Your task to perform on an android device: Open Android settings Image 0: 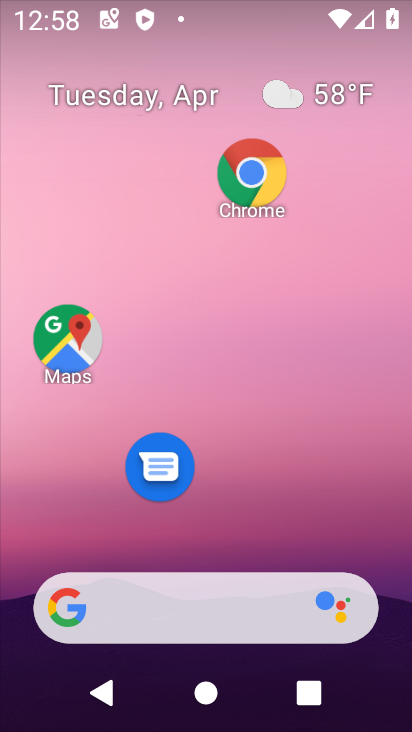
Step 0: drag from (282, 500) to (330, 104)
Your task to perform on an android device: Open Android settings Image 1: 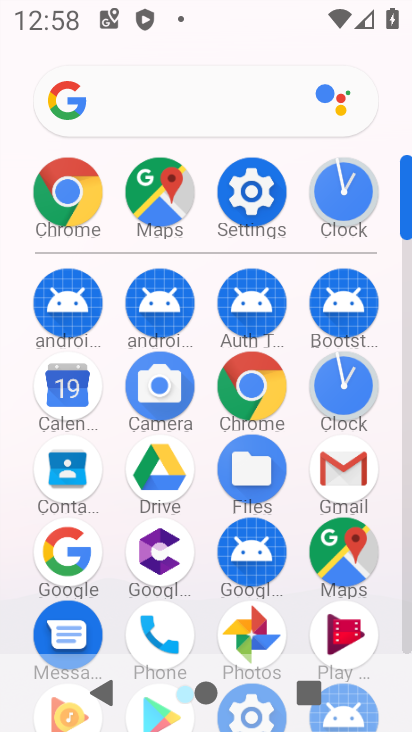
Step 1: drag from (303, 544) to (305, 149)
Your task to perform on an android device: Open Android settings Image 2: 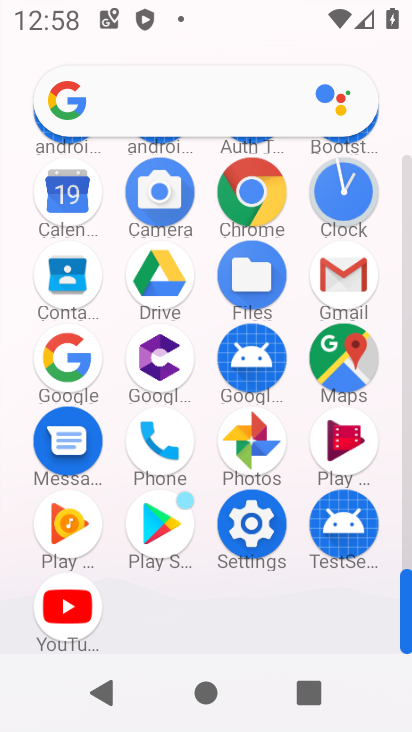
Step 2: click (264, 535)
Your task to perform on an android device: Open Android settings Image 3: 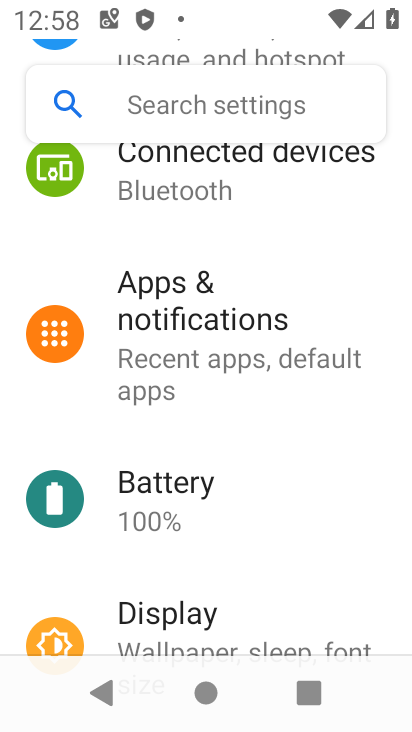
Step 3: drag from (266, 509) to (274, 213)
Your task to perform on an android device: Open Android settings Image 4: 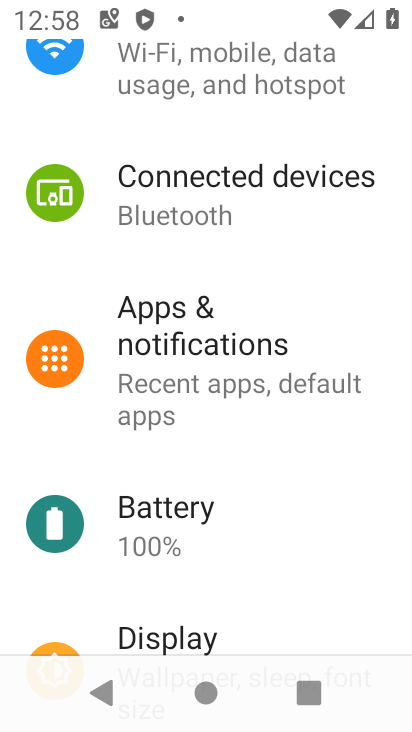
Step 4: drag from (268, 527) to (288, 142)
Your task to perform on an android device: Open Android settings Image 5: 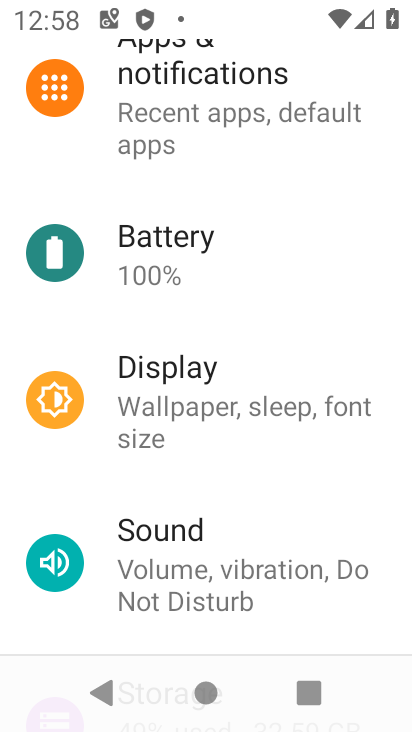
Step 5: drag from (233, 492) to (294, 132)
Your task to perform on an android device: Open Android settings Image 6: 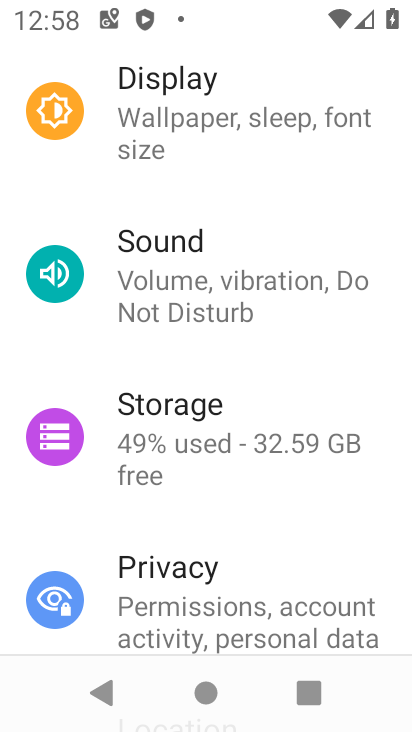
Step 6: drag from (298, 504) to (302, 147)
Your task to perform on an android device: Open Android settings Image 7: 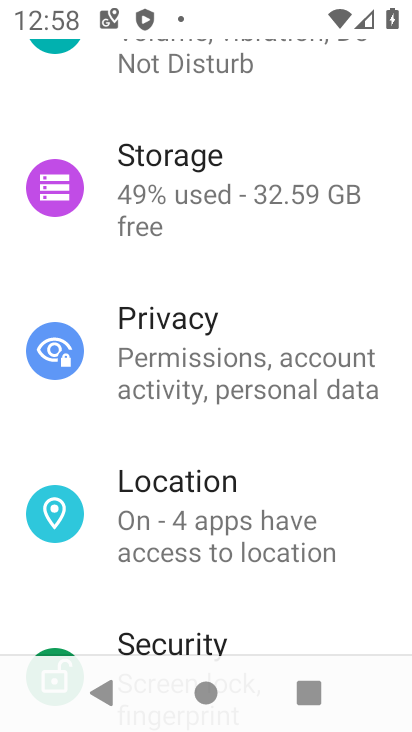
Step 7: drag from (265, 603) to (290, 245)
Your task to perform on an android device: Open Android settings Image 8: 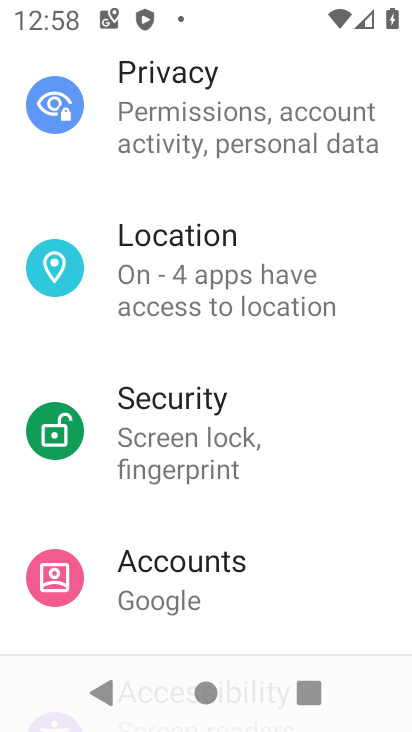
Step 8: drag from (296, 619) to (304, 228)
Your task to perform on an android device: Open Android settings Image 9: 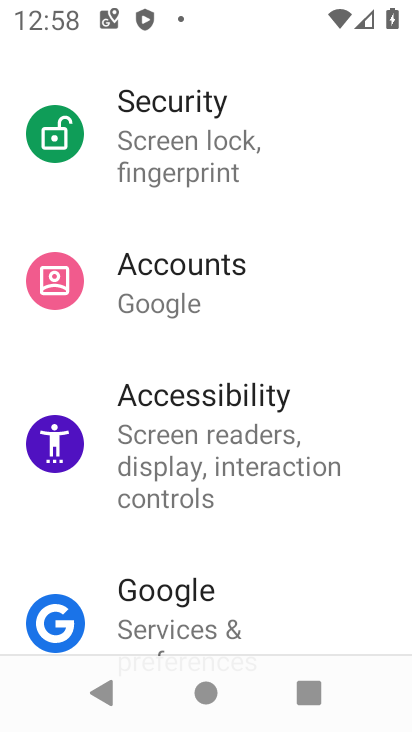
Step 9: drag from (265, 598) to (280, 164)
Your task to perform on an android device: Open Android settings Image 10: 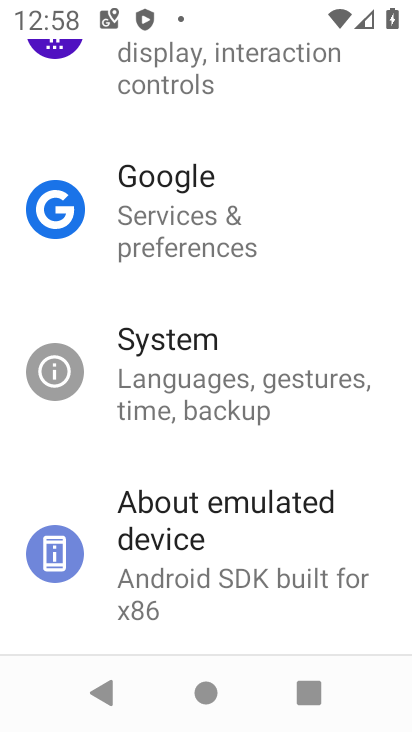
Step 10: drag from (268, 651) to (288, 257)
Your task to perform on an android device: Open Android settings Image 11: 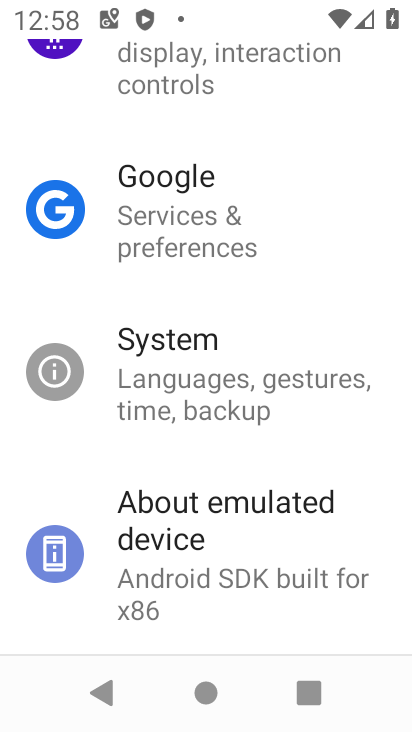
Step 11: click (252, 560)
Your task to perform on an android device: Open Android settings Image 12: 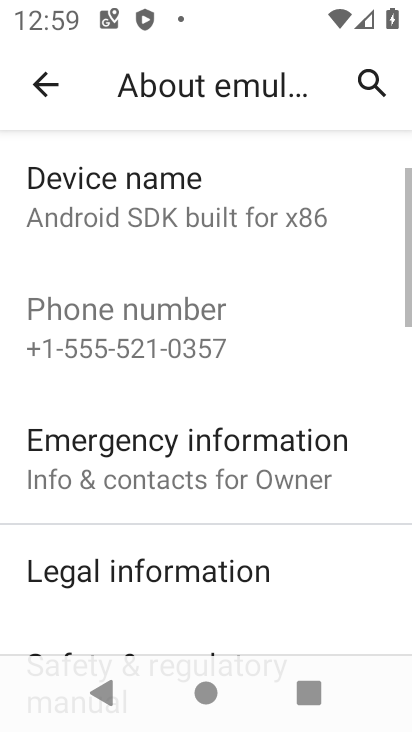
Step 12: drag from (160, 585) to (205, 37)
Your task to perform on an android device: Open Android settings Image 13: 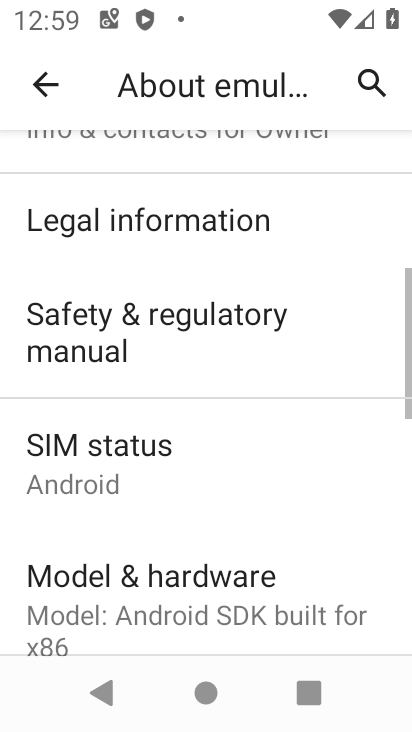
Step 13: drag from (158, 577) to (207, 182)
Your task to perform on an android device: Open Android settings Image 14: 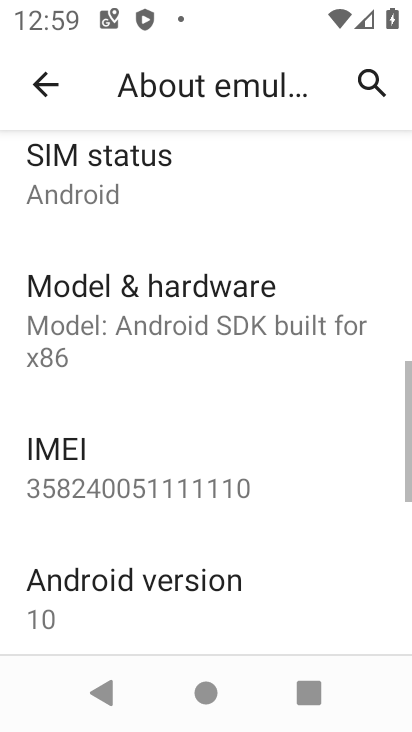
Step 14: drag from (209, 225) to (243, 189)
Your task to perform on an android device: Open Android settings Image 15: 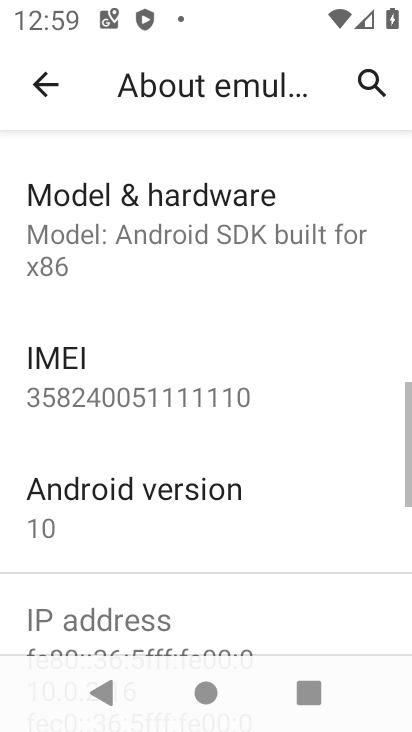
Step 15: click (135, 510)
Your task to perform on an android device: Open Android settings Image 16: 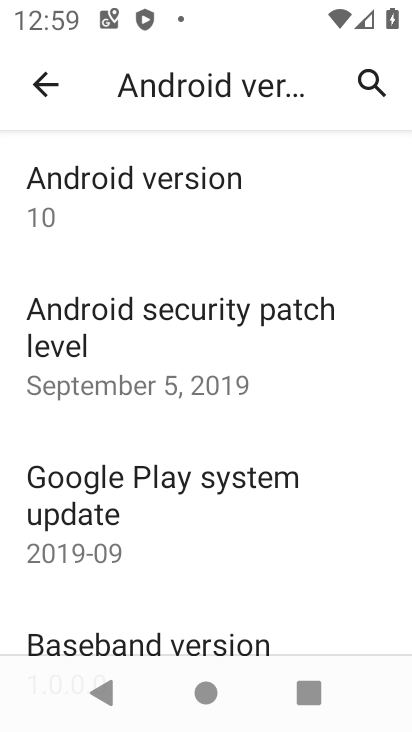
Step 16: task complete